Your task to perform on an android device: add a contact Image 0: 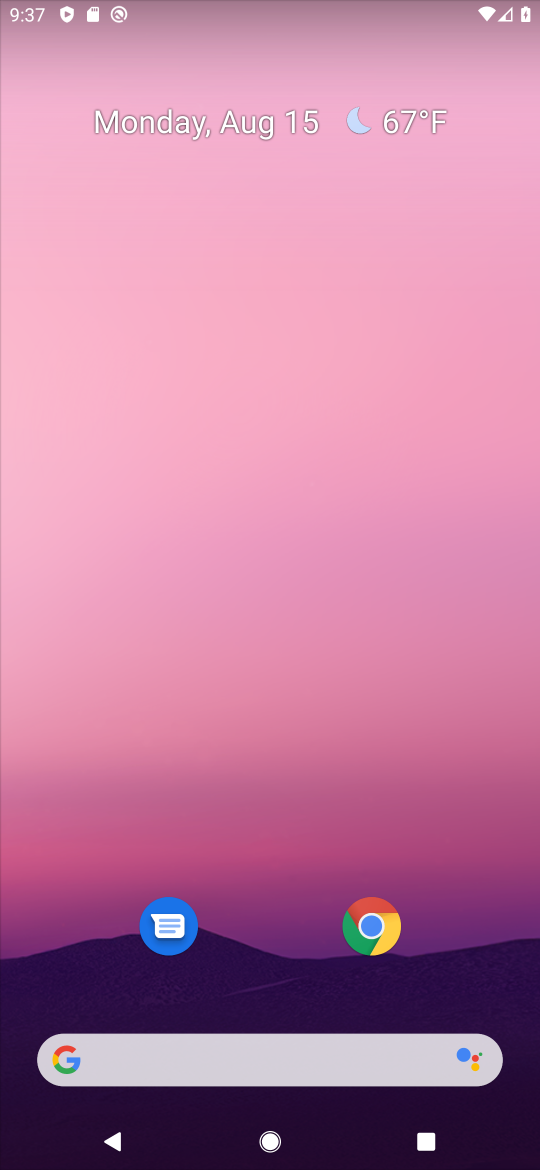
Step 0: drag from (282, 1004) to (258, 86)
Your task to perform on an android device: add a contact Image 1: 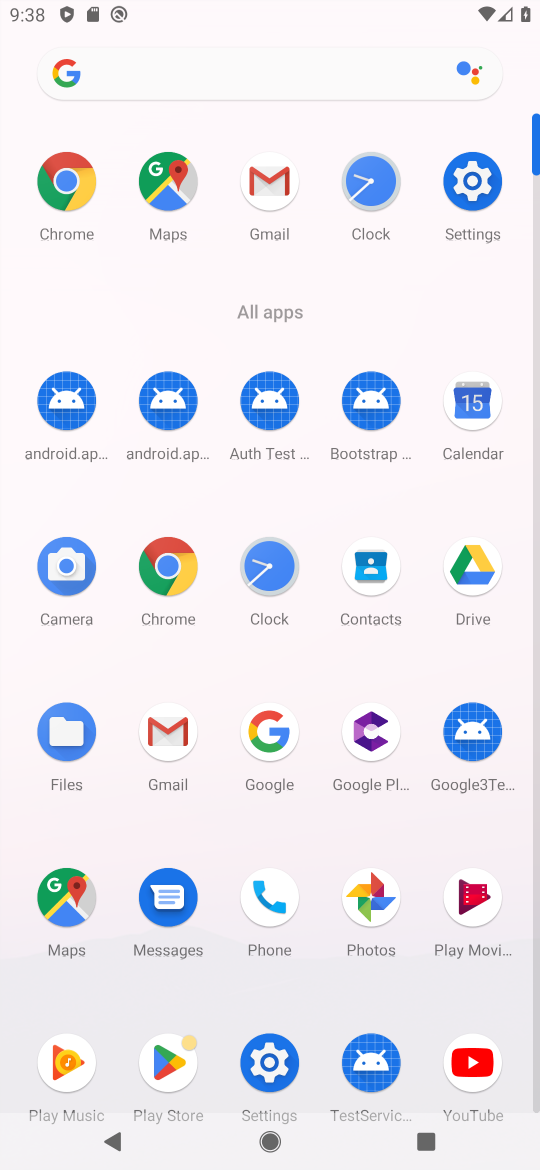
Step 1: click (375, 570)
Your task to perform on an android device: add a contact Image 2: 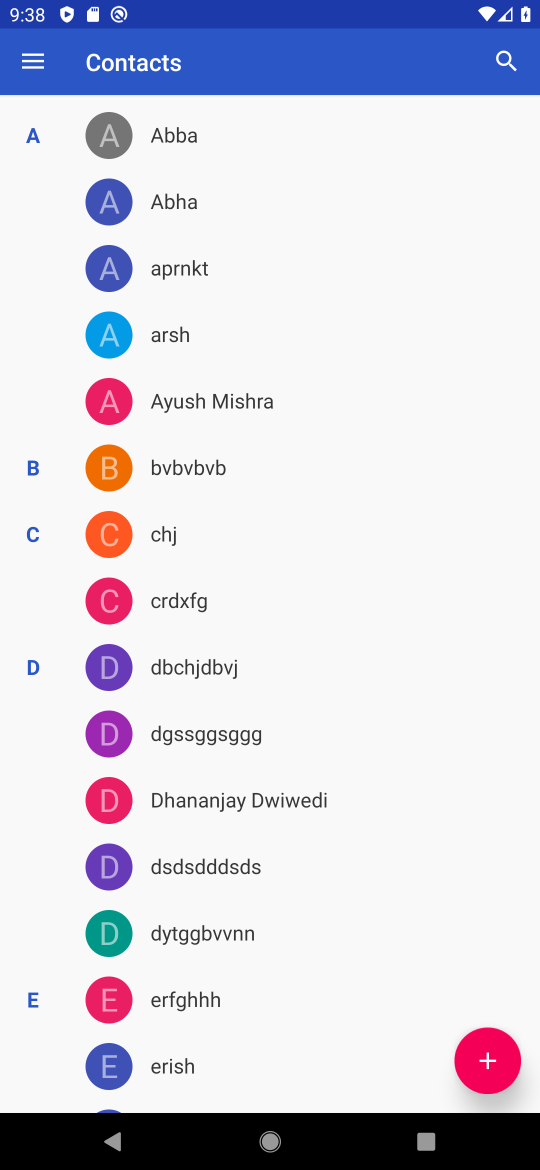
Step 2: click (496, 1065)
Your task to perform on an android device: add a contact Image 3: 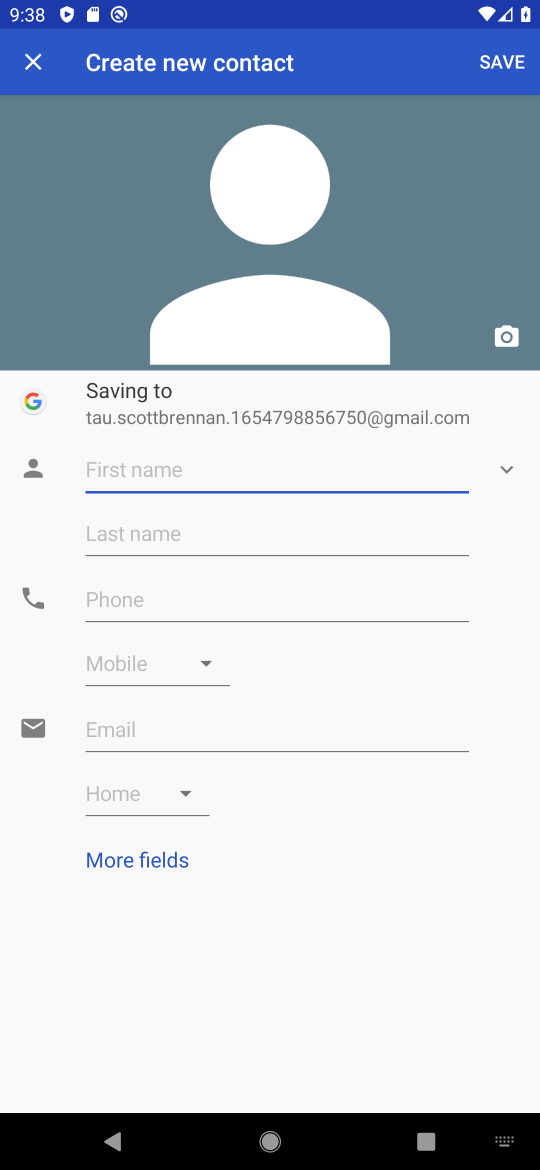
Step 3: type "jd"
Your task to perform on an android device: add a contact Image 4: 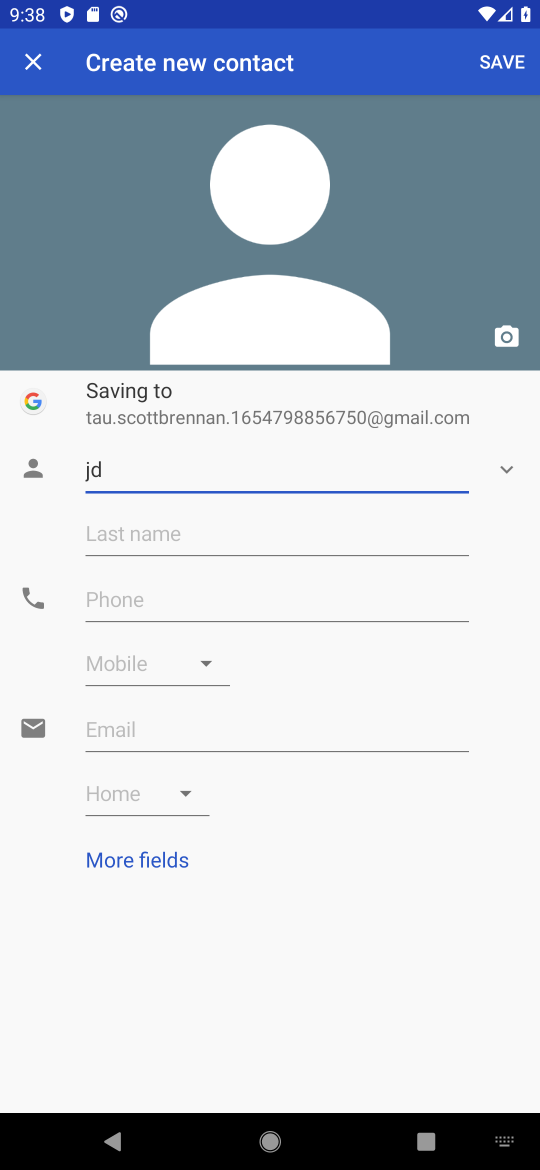
Step 4: click (223, 588)
Your task to perform on an android device: add a contact Image 5: 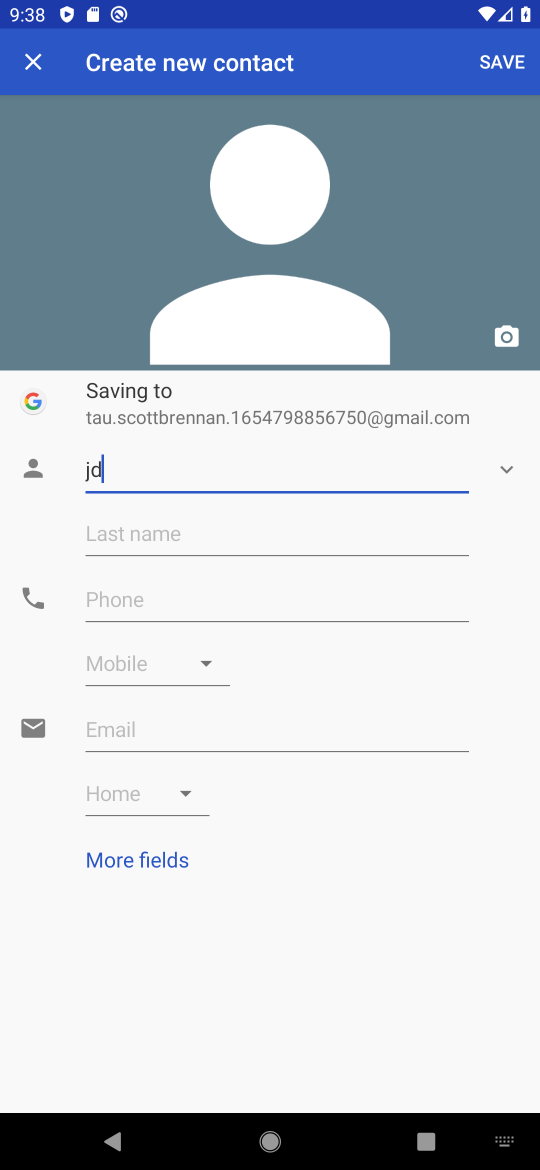
Step 5: click (223, 588)
Your task to perform on an android device: add a contact Image 6: 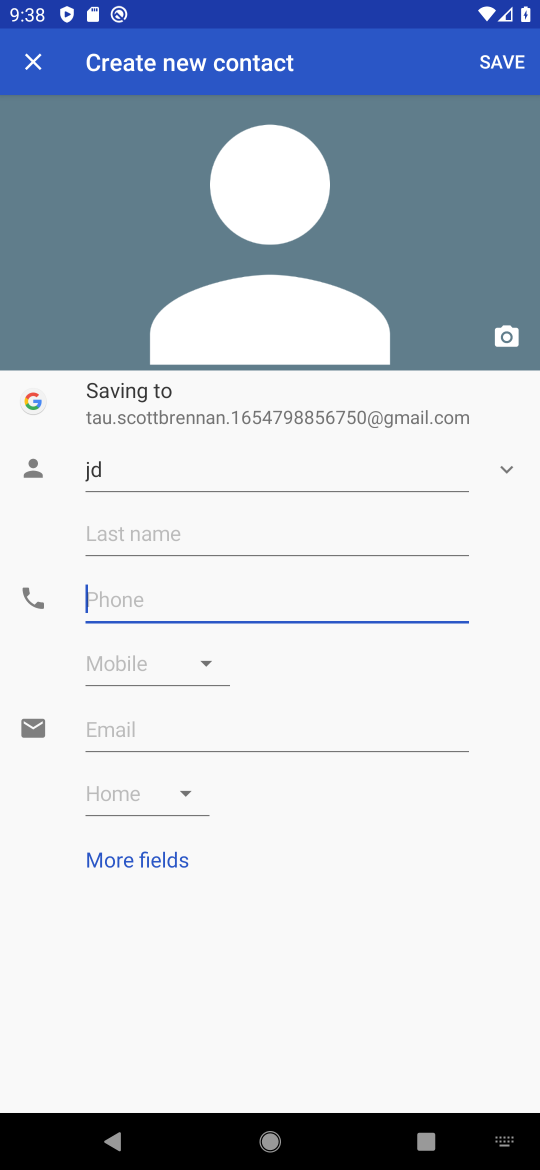
Step 6: click (223, 588)
Your task to perform on an android device: add a contact Image 7: 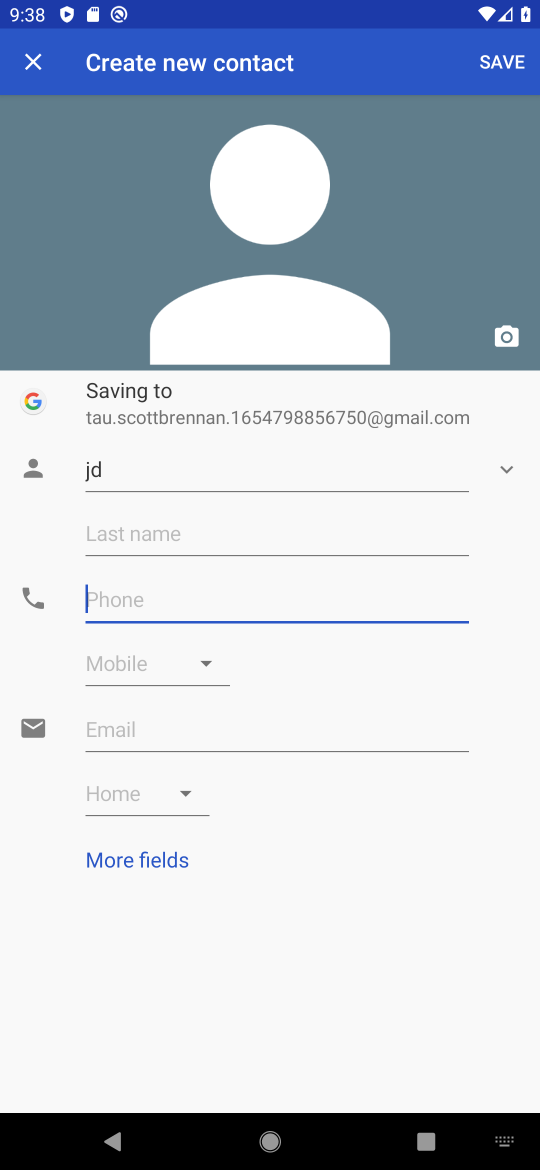
Step 7: type "57585"
Your task to perform on an android device: add a contact Image 8: 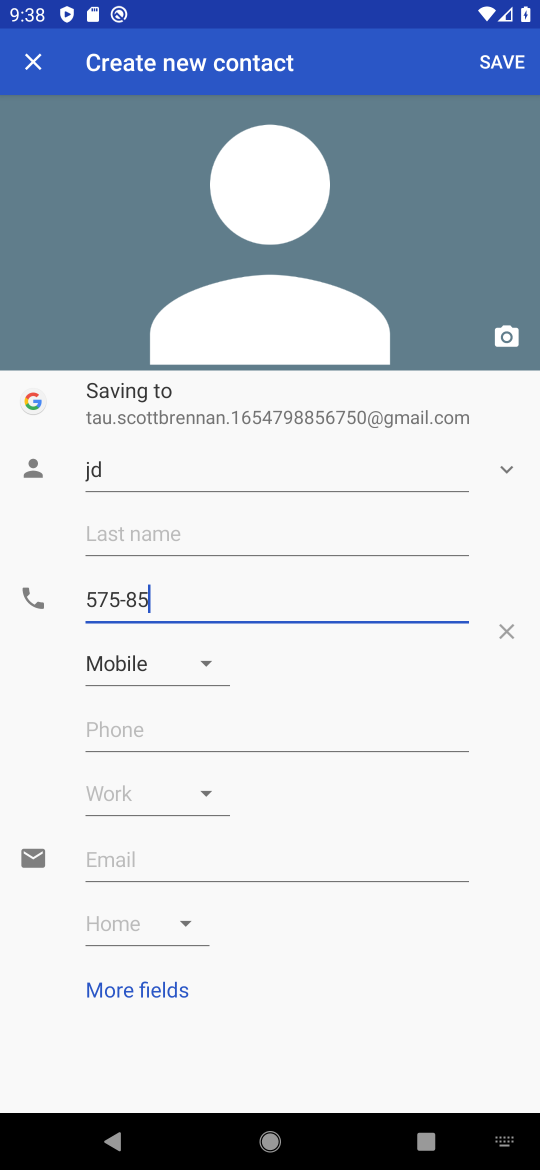
Step 8: click (507, 59)
Your task to perform on an android device: add a contact Image 9: 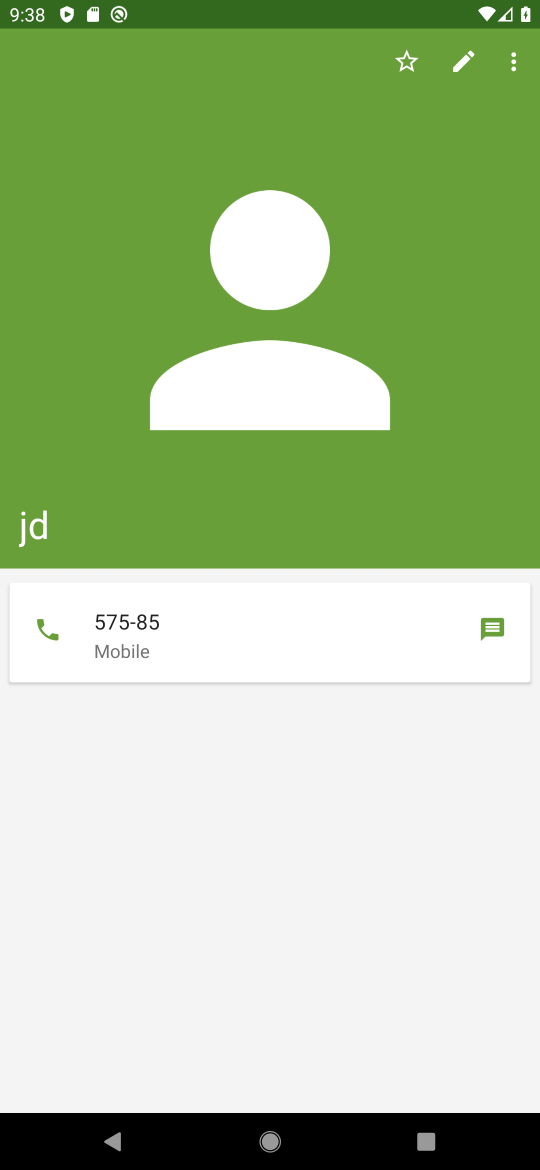
Step 9: task complete